Your task to perform on an android device: turn smart compose on in the gmail app Image 0: 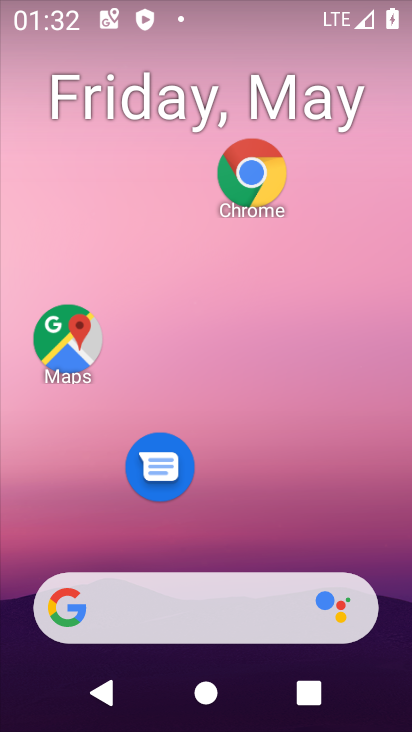
Step 0: drag from (239, 645) to (262, 243)
Your task to perform on an android device: turn smart compose on in the gmail app Image 1: 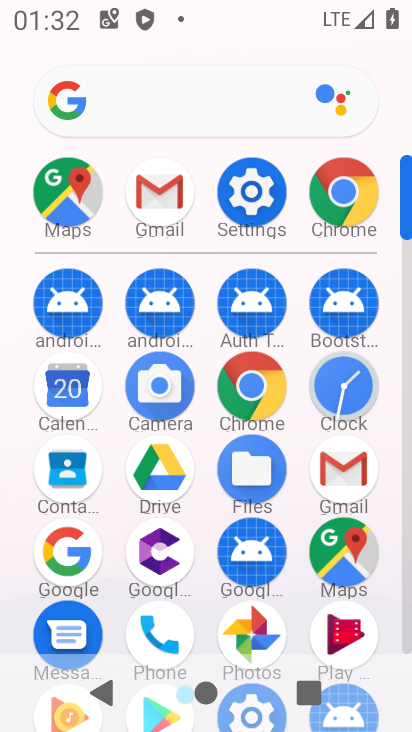
Step 1: click (350, 487)
Your task to perform on an android device: turn smart compose on in the gmail app Image 2: 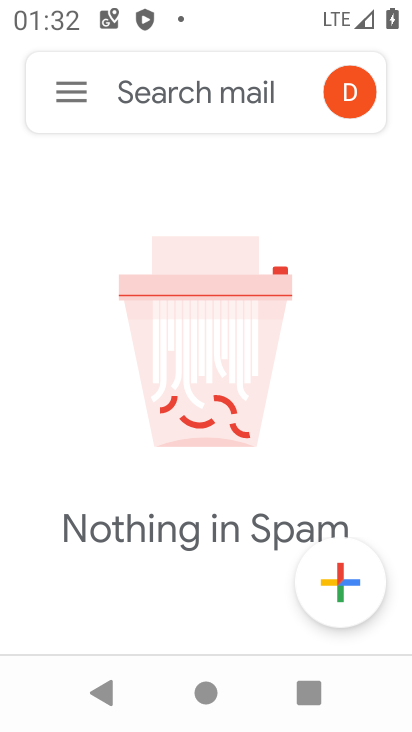
Step 2: click (69, 107)
Your task to perform on an android device: turn smart compose on in the gmail app Image 3: 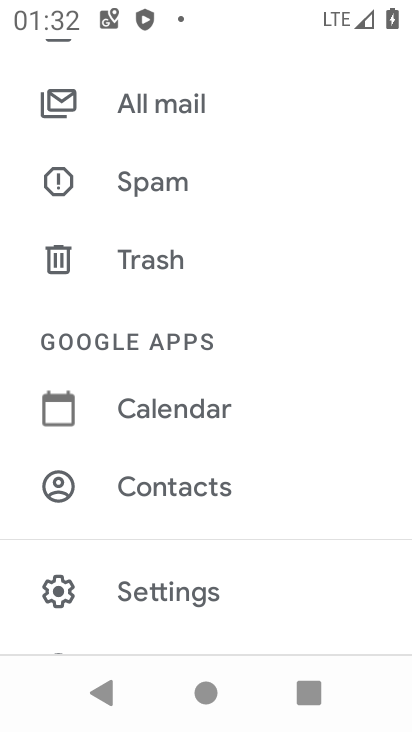
Step 3: click (173, 596)
Your task to perform on an android device: turn smart compose on in the gmail app Image 4: 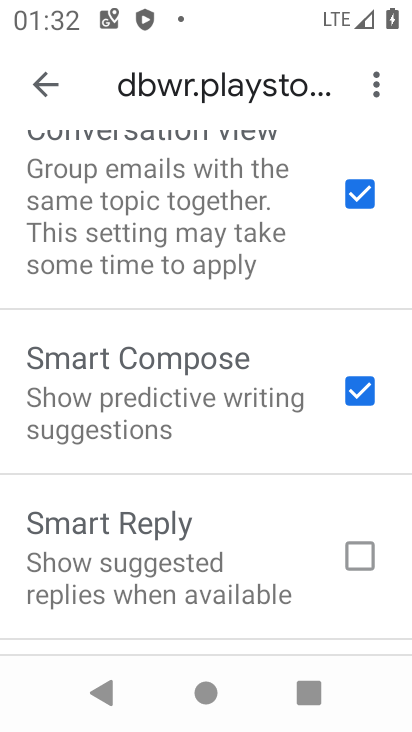
Step 4: click (341, 416)
Your task to perform on an android device: turn smart compose on in the gmail app Image 5: 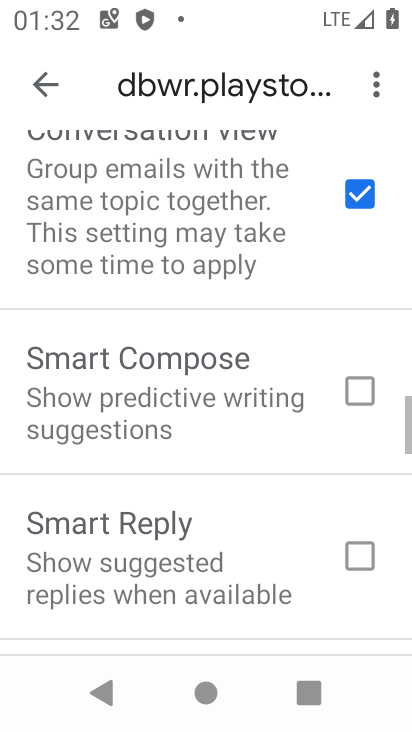
Step 5: click (344, 410)
Your task to perform on an android device: turn smart compose on in the gmail app Image 6: 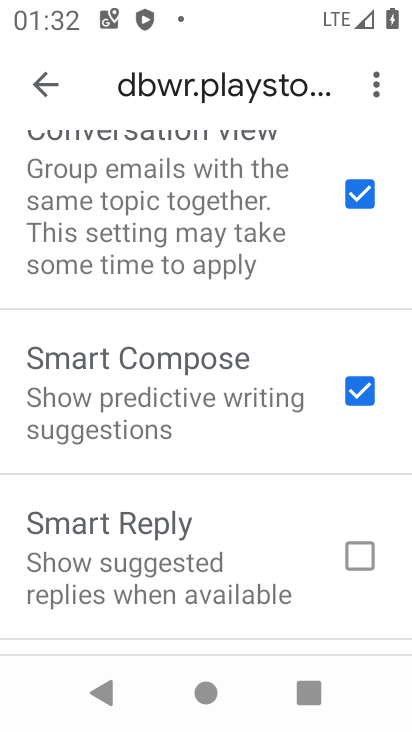
Step 6: task complete